Your task to perform on an android device: Open Google Image 0: 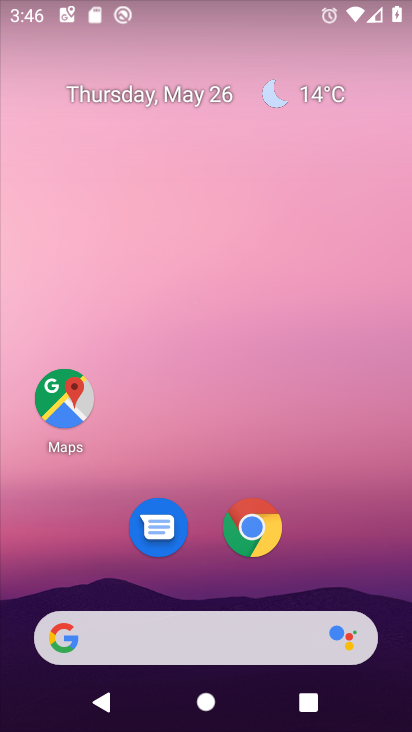
Step 0: drag from (358, 580) to (288, 243)
Your task to perform on an android device: Open Google Image 1: 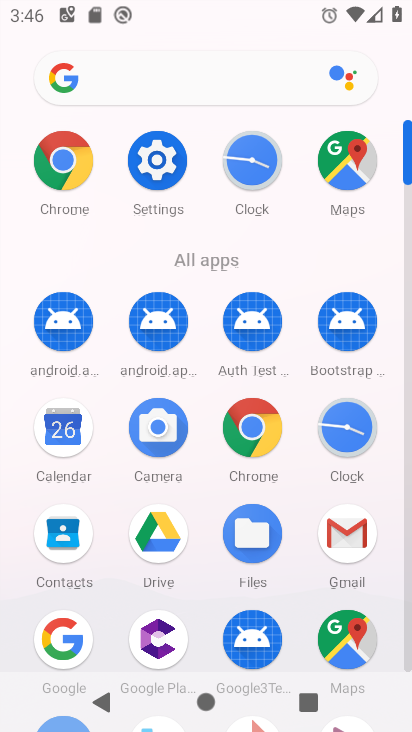
Step 1: click (46, 638)
Your task to perform on an android device: Open Google Image 2: 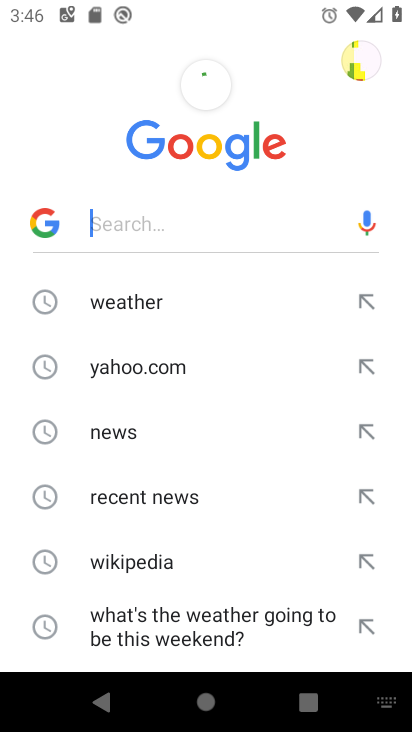
Step 2: task complete